Your task to perform on an android device: turn on the 24-hour format for clock Image 0: 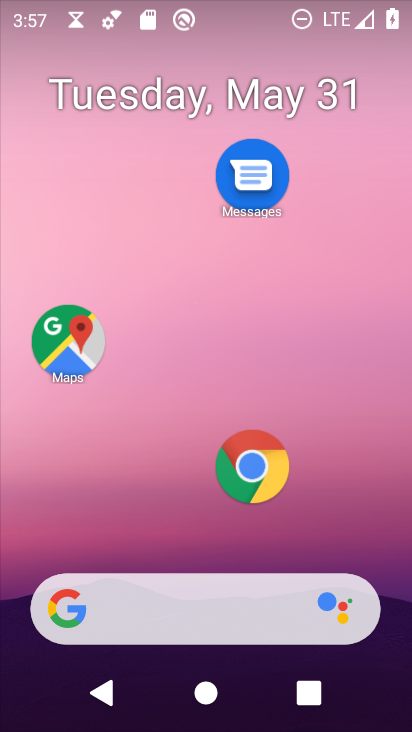
Step 0: drag from (216, 501) to (246, 7)
Your task to perform on an android device: turn on the 24-hour format for clock Image 1: 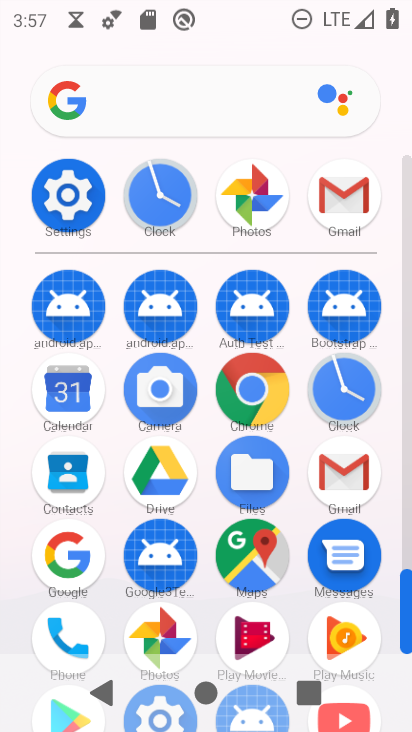
Step 1: click (152, 193)
Your task to perform on an android device: turn on the 24-hour format for clock Image 2: 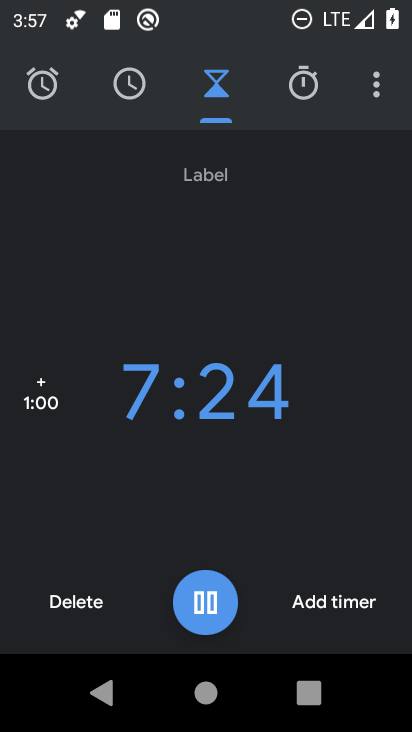
Step 2: click (373, 82)
Your task to perform on an android device: turn on the 24-hour format for clock Image 3: 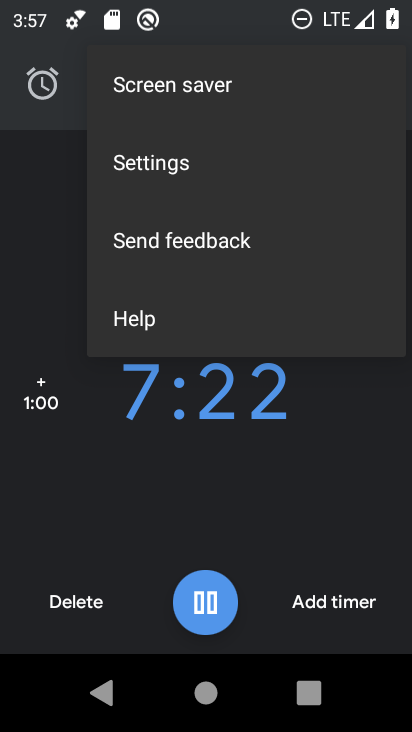
Step 3: click (204, 173)
Your task to perform on an android device: turn on the 24-hour format for clock Image 4: 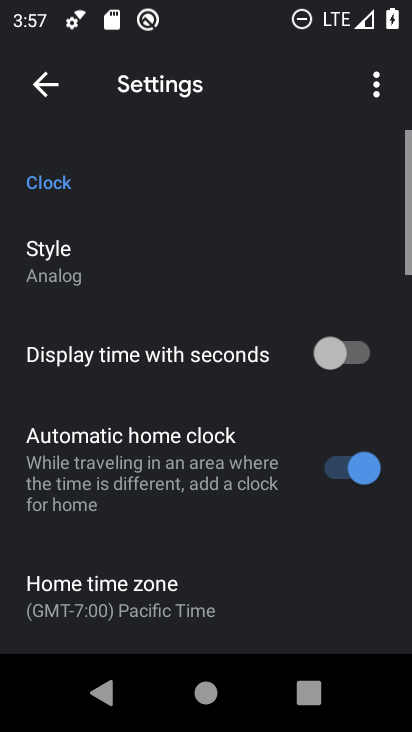
Step 4: drag from (149, 580) to (263, 85)
Your task to perform on an android device: turn on the 24-hour format for clock Image 5: 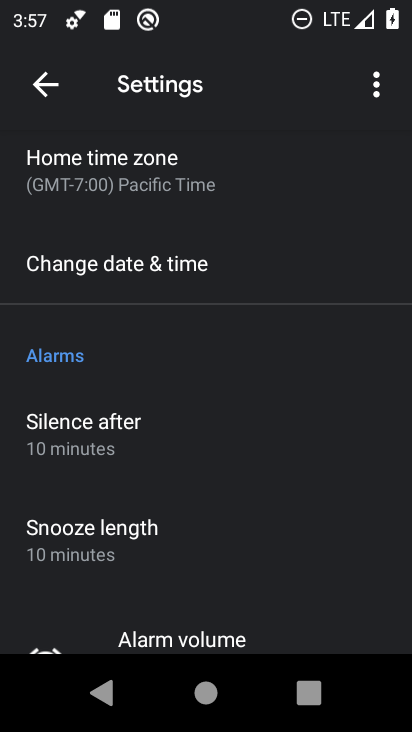
Step 5: click (86, 258)
Your task to perform on an android device: turn on the 24-hour format for clock Image 6: 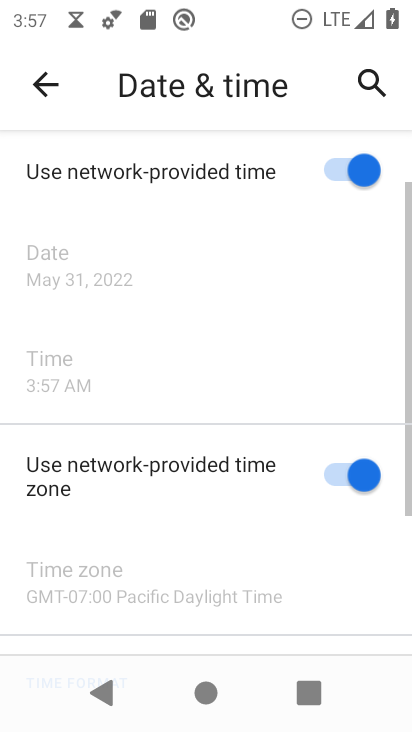
Step 6: drag from (139, 590) to (241, 80)
Your task to perform on an android device: turn on the 24-hour format for clock Image 7: 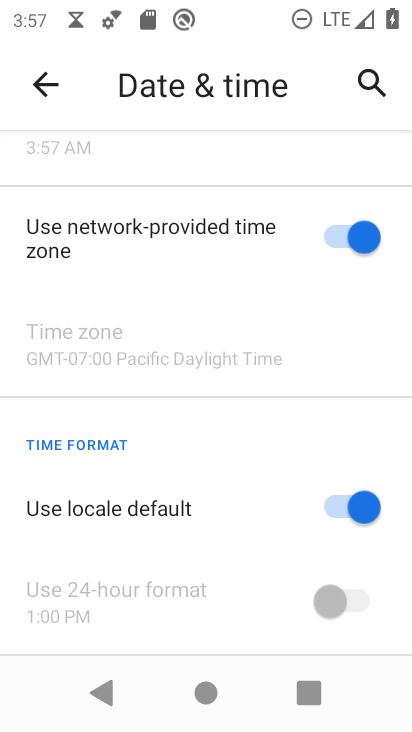
Step 7: click (370, 506)
Your task to perform on an android device: turn on the 24-hour format for clock Image 8: 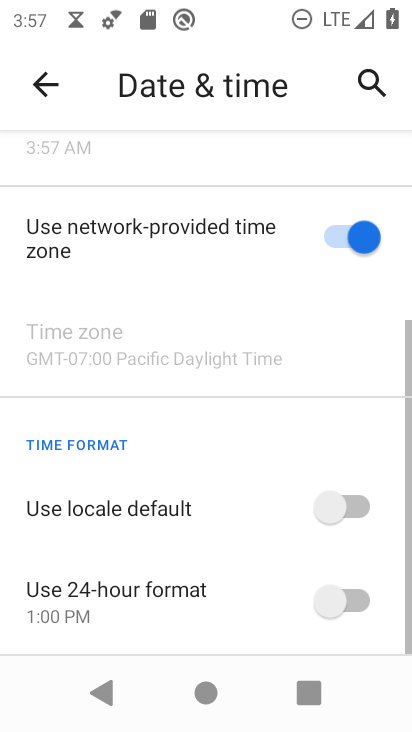
Step 8: click (345, 593)
Your task to perform on an android device: turn on the 24-hour format for clock Image 9: 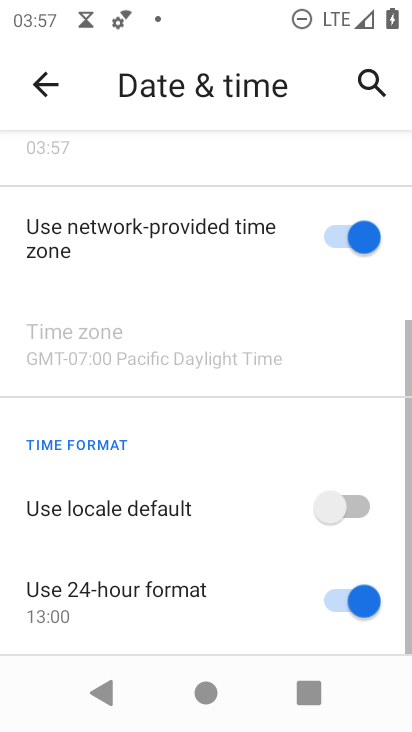
Step 9: task complete